Your task to perform on an android device: Open maps Image 0: 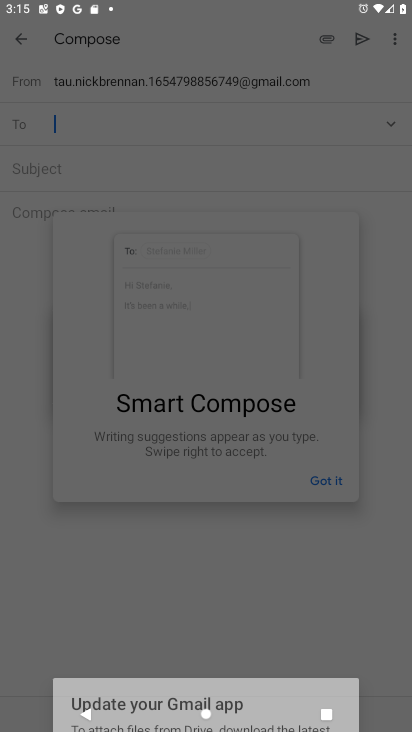
Step 0: press home button
Your task to perform on an android device: Open maps Image 1: 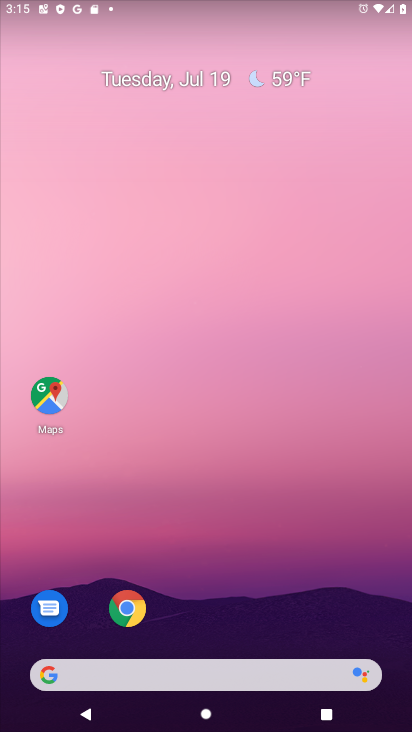
Step 1: click (53, 407)
Your task to perform on an android device: Open maps Image 2: 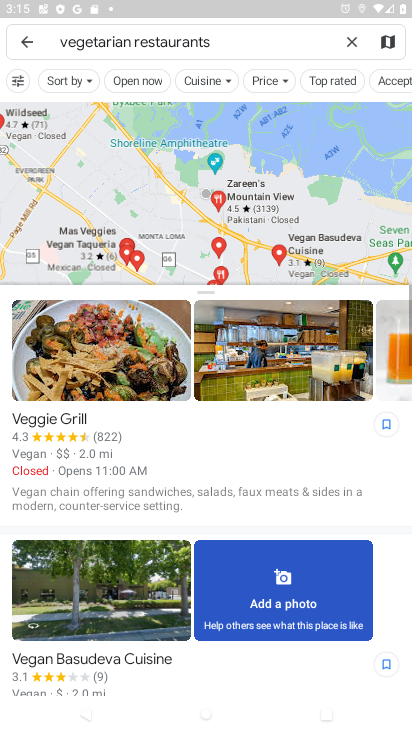
Step 2: task complete